Your task to perform on an android device: Go to Reddit.com Image 0: 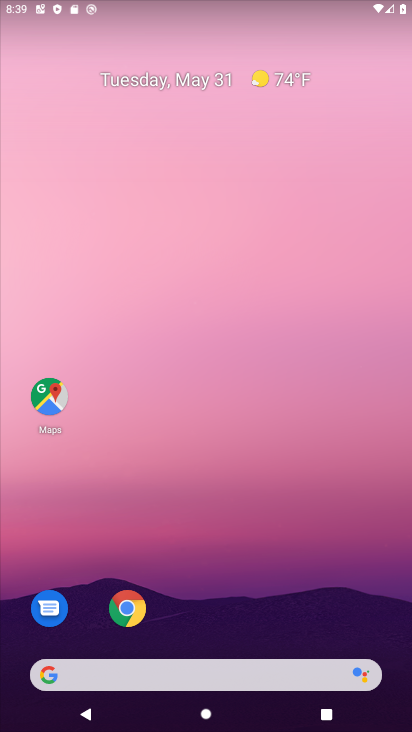
Step 0: click (139, 604)
Your task to perform on an android device: Go to Reddit.com Image 1: 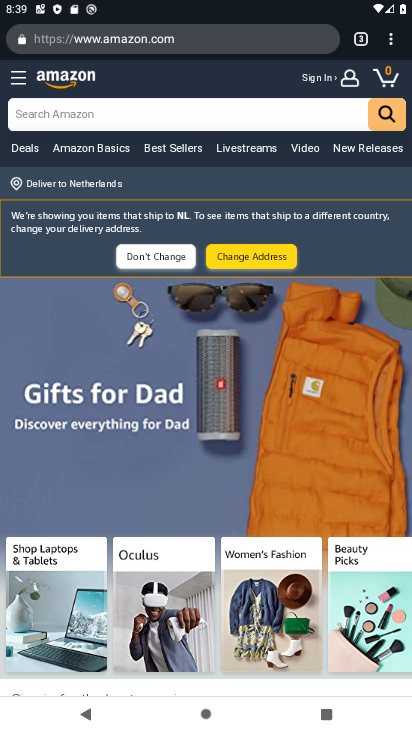
Step 1: click (356, 51)
Your task to perform on an android device: Go to Reddit.com Image 2: 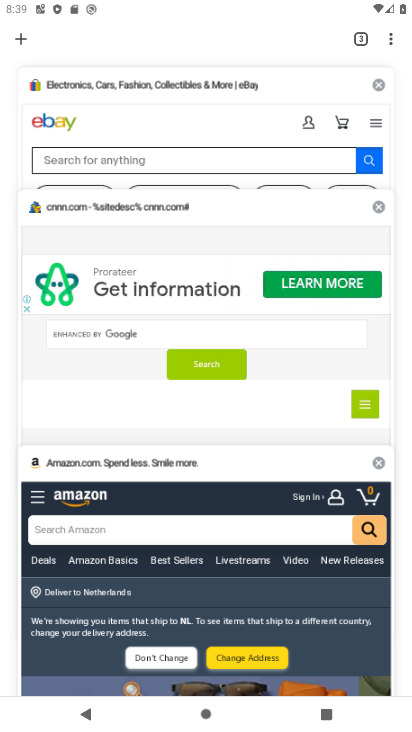
Step 2: click (25, 45)
Your task to perform on an android device: Go to Reddit.com Image 3: 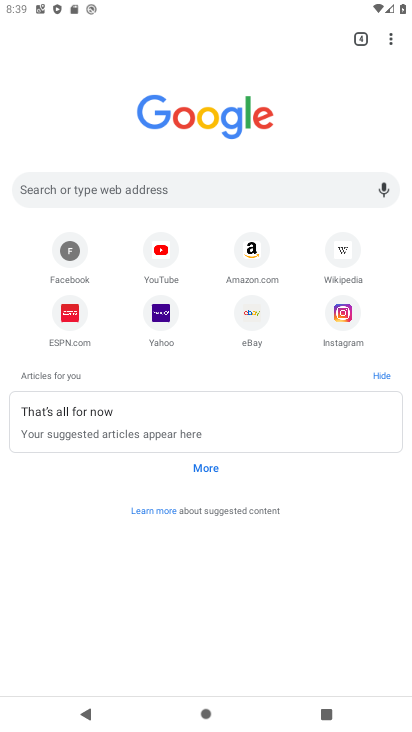
Step 3: click (94, 177)
Your task to perform on an android device: Go to Reddit.com Image 4: 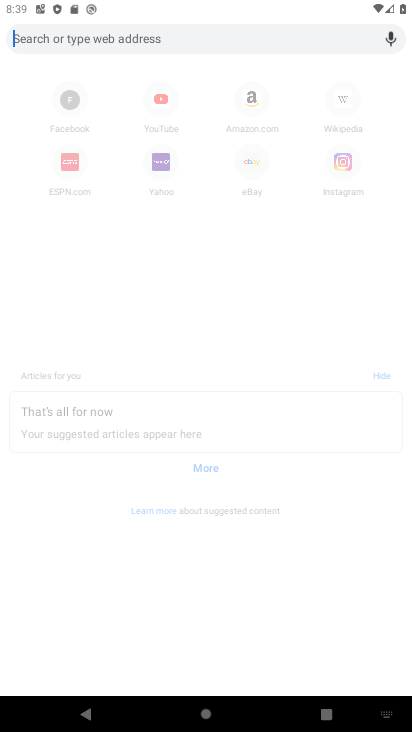
Step 4: type "reddit"
Your task to perform on an android device: Go to Reddit.com Image 5: 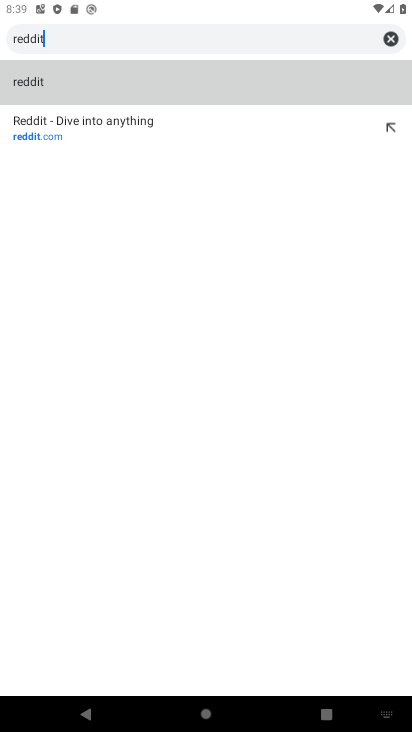
Step 5: click (43, 130)
Your task to perform on an android device: Go to Reddit.com Image 6: 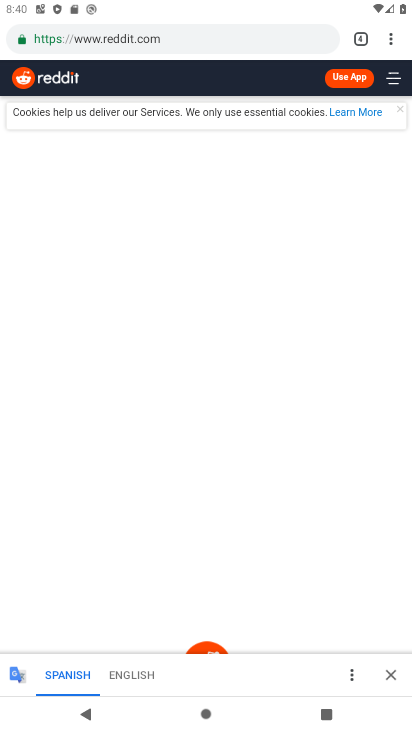
Step 6: task complete